Your task to perform on an android device: What's the weather today? Image 0: 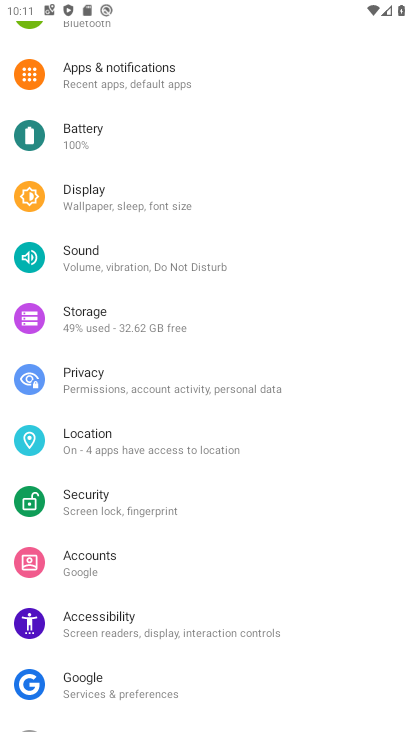
Step 0: press home button
Your task to perform on an android device: What's the weather today? Image 1: 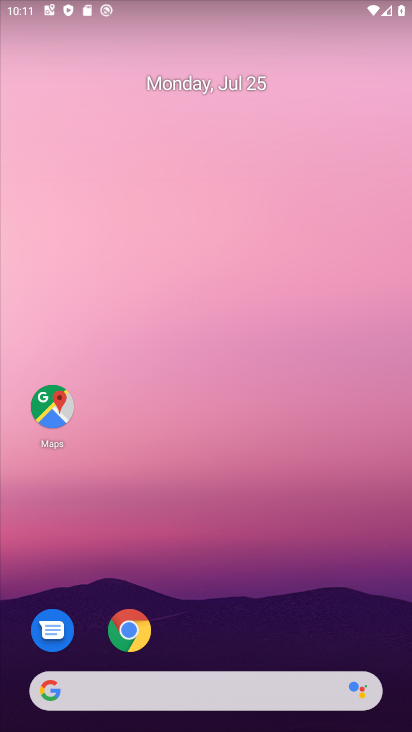
Step 1: click (245, 688)
Your task to perform on an android device: What's the weather today? Image 2: 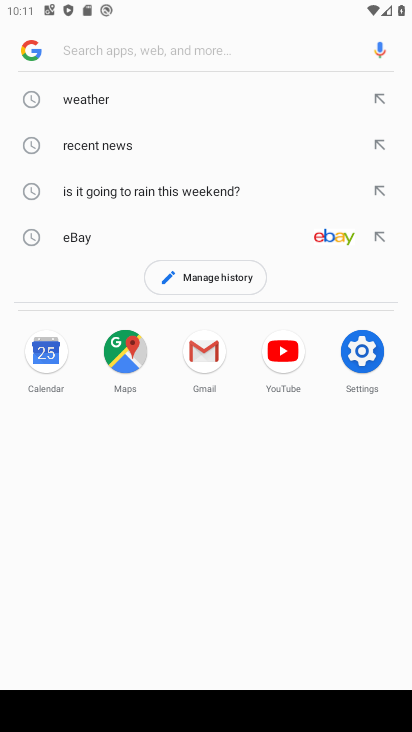
Step 2: click (117, 94)
Your task to perform on an android device: What's the weather today? Image 3: 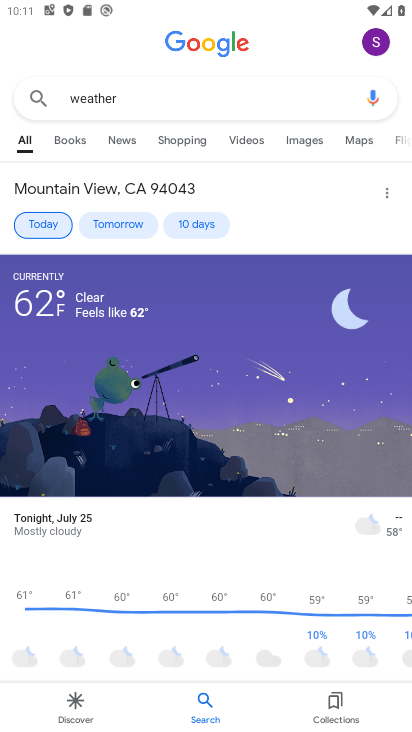
Step 3: task complete